Your task to perform on an android device: turn off smart reply in the gmail app Image 0: 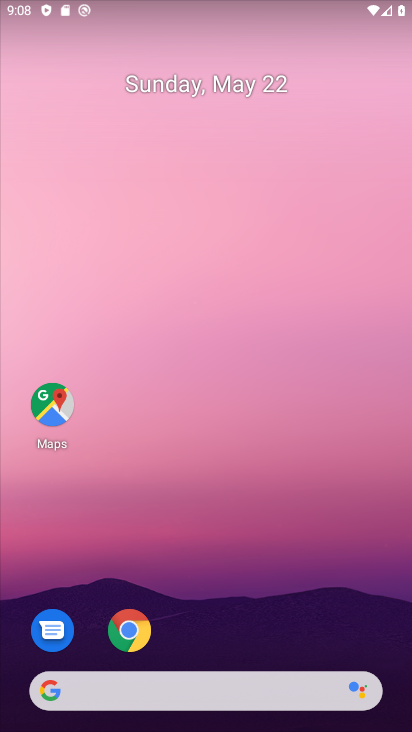
Step 0: drag from (401, 711) to (371, 75)
Your task to perform on an android device: turn off smart reply in the gmail app Image 1: 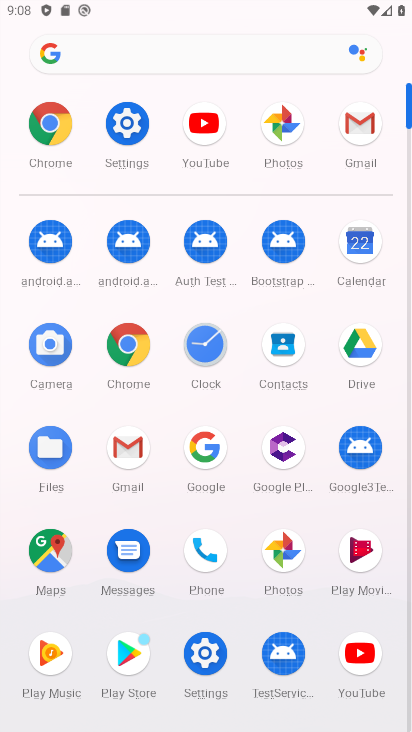
Step 1: click (128, 453)
Your task to perform on an android device: turn off smart reply in the gmail app Image 2: 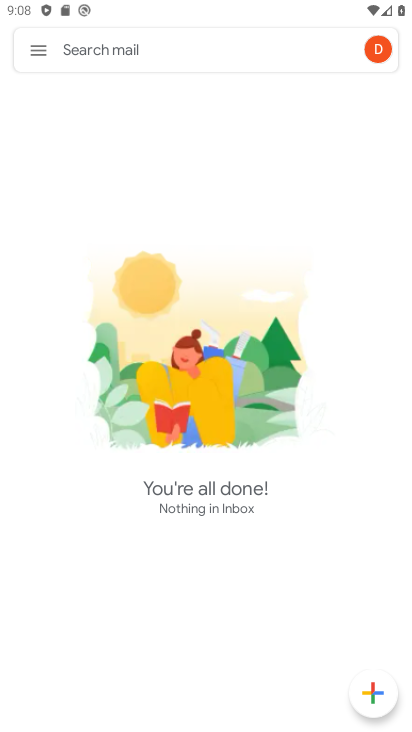
Step 2: click (38, 47)
Your task to perform on an android device: turn off smart reply in the gmail app Image 3: 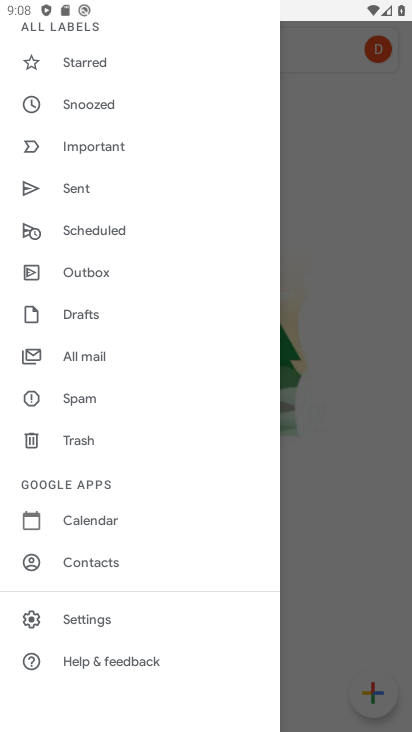
Step 3: drag from (212, 581) to (202, 236)
Your task to perform on an android device: turn off smart reply in the gmail app Image 4: 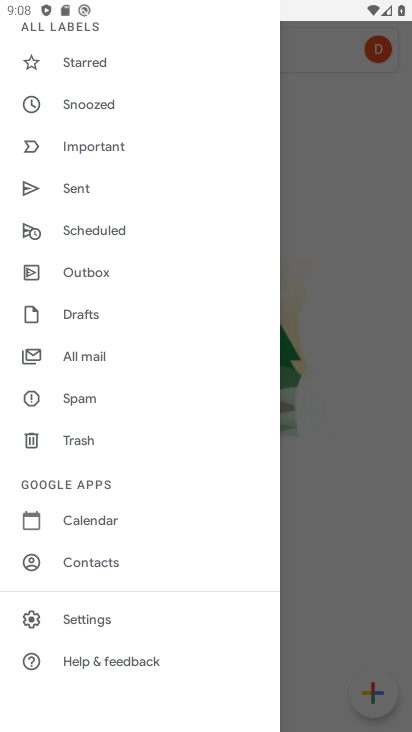
Step 4: click (83, 609)
Your task to perform on an android device: turn off smart reply in the gmail app Image 5: 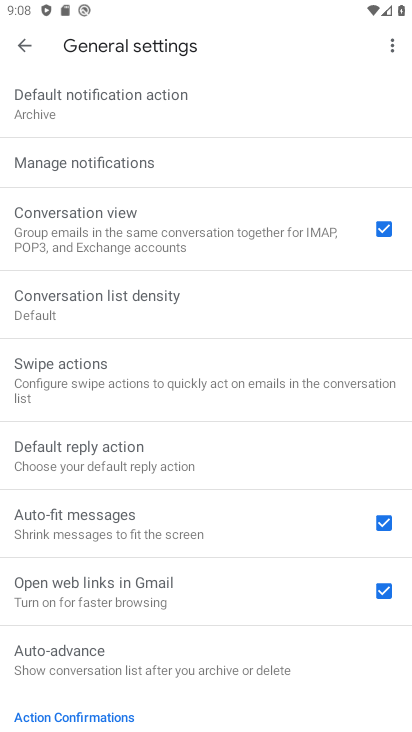
Step 5: click (25, 51)
Your task to perform on an android device: turn off smart reply in the gmail app Image 6: 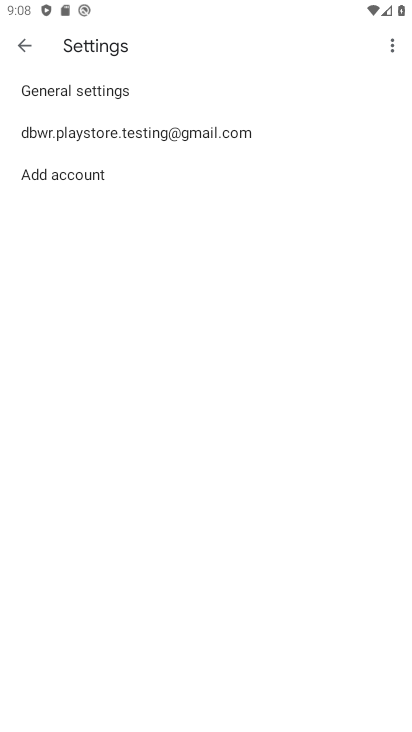
Step 6: click (45, 125)
Your task to perform on an android device: turn off smart reply in the gmail app Image 7: 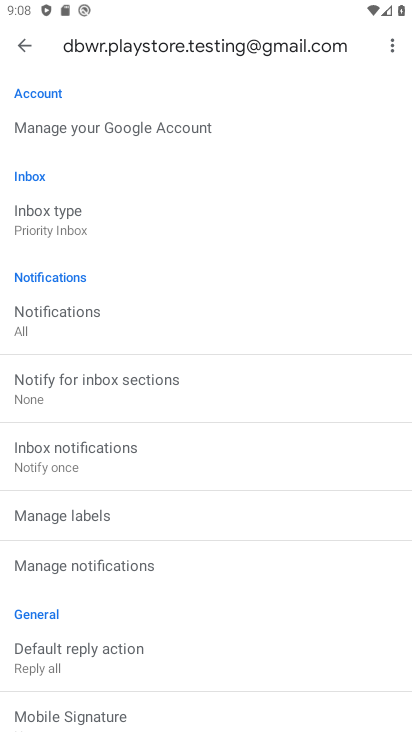
Step 7: drag from (236, 631) to (248, 328)
Your task to perform on an android device: turn off smart reply in the gmail app Image 8: 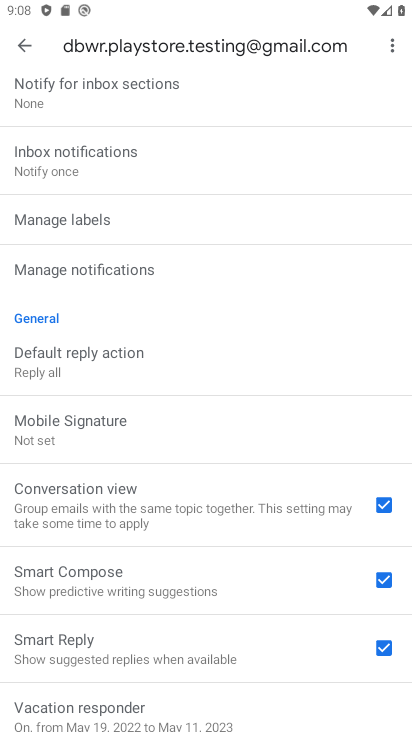
Step 8: click (383, 644)
Your task to perform on an android device: turn off smart reply in the gmail app Image 9: 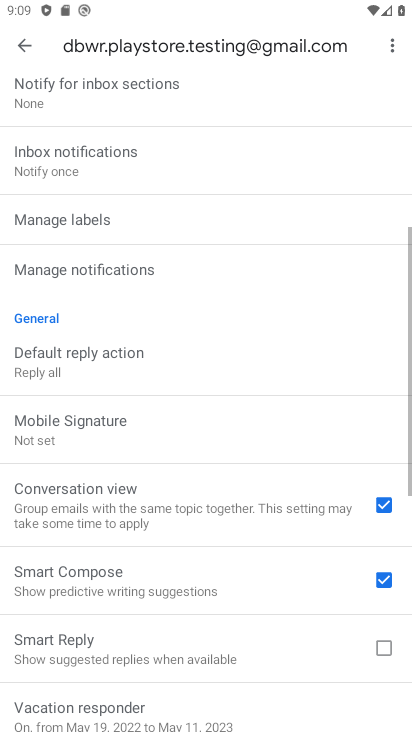
Step 9: task complete